Your task to perform on an android device: Go to wifi settings Image 0: 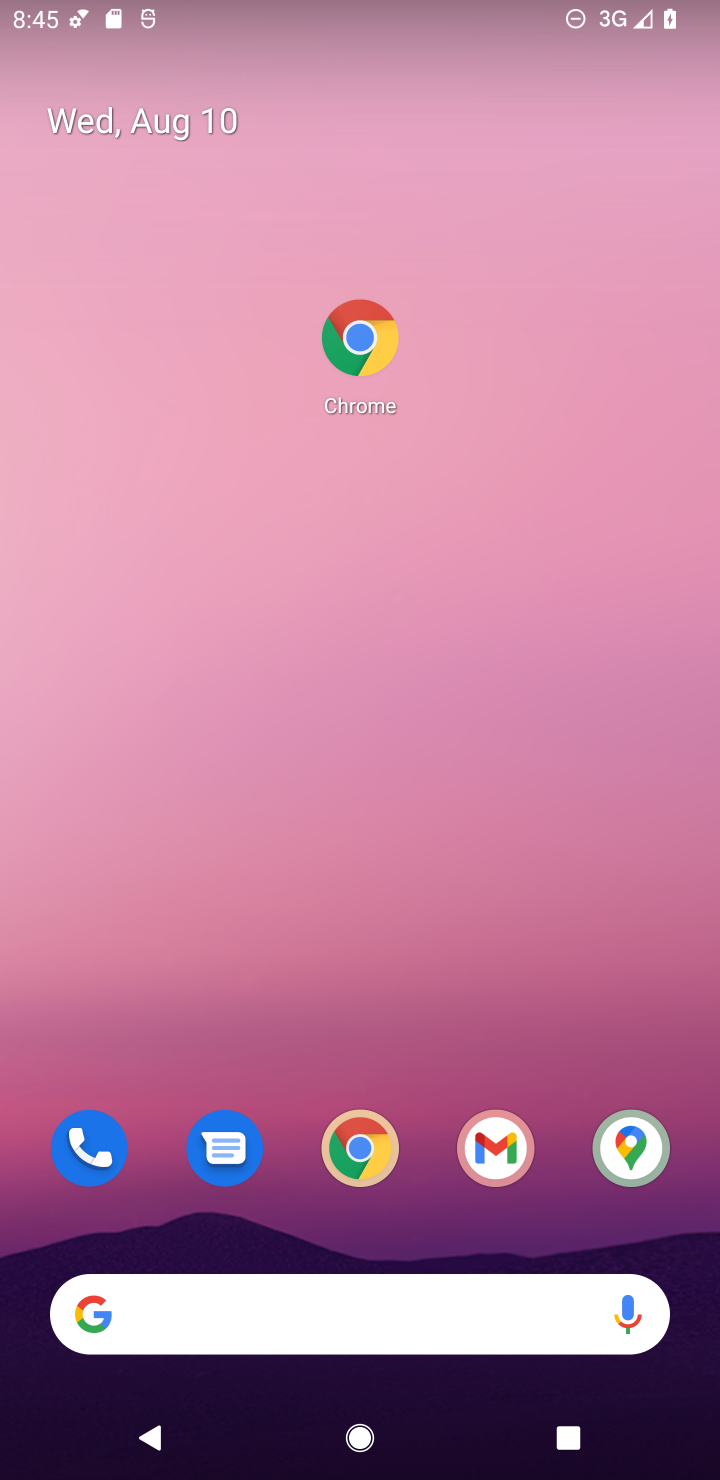
Step 0: drag from (337, 14) to (426, 952)
Your task to perform on an android device: Go to wifi settings Image 1: 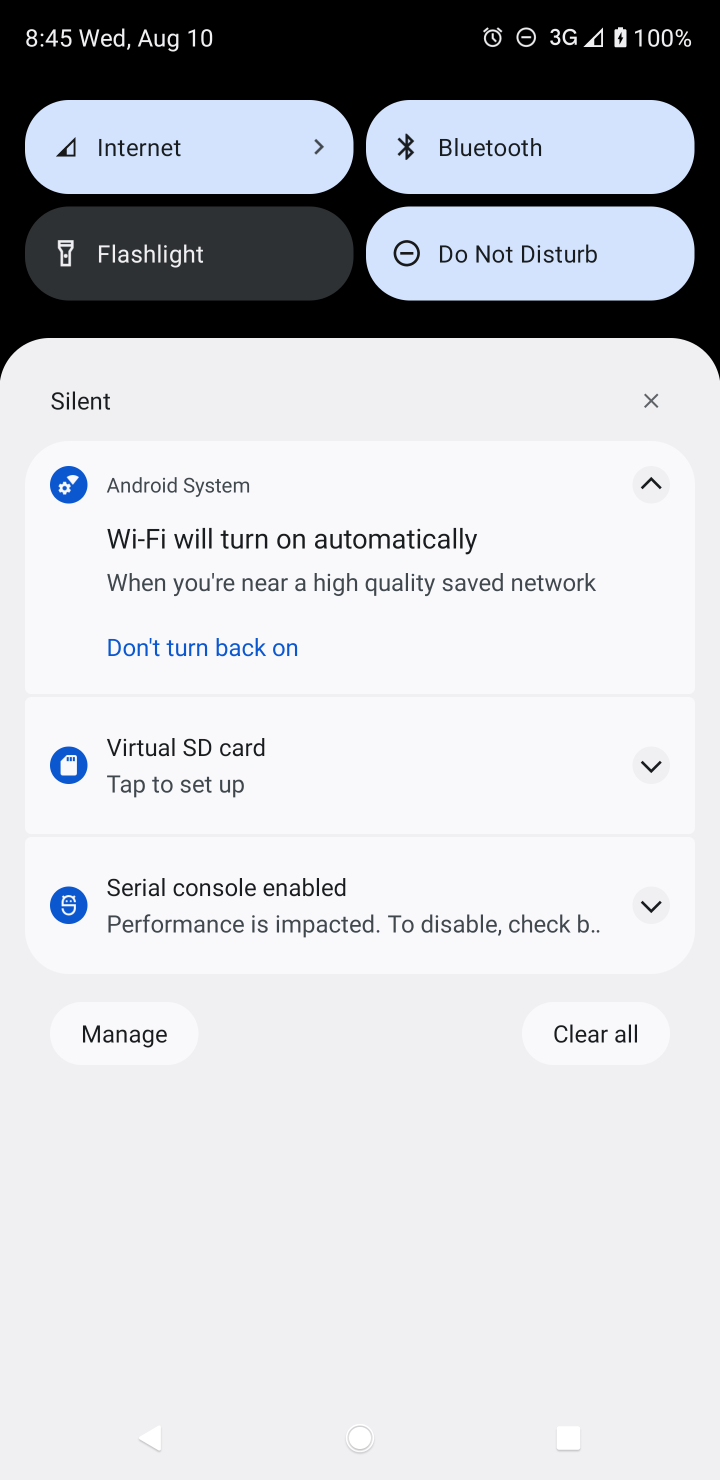
Step 1: click (282, 157)
Your task to perform on an android device: Go to wifi settings Image 2: 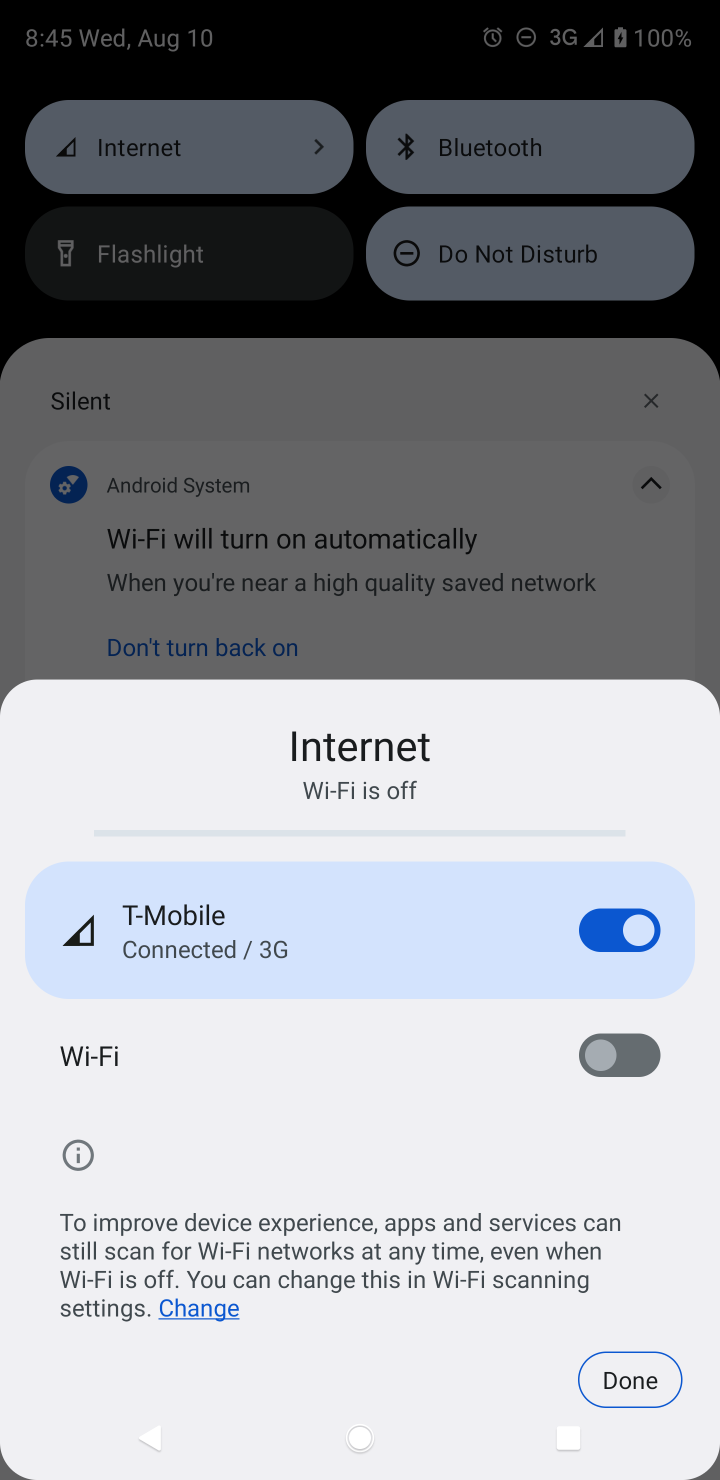
Step 2: click (204, 1080)
Your task to perform on an android device: Go to wifi settings Image 3: 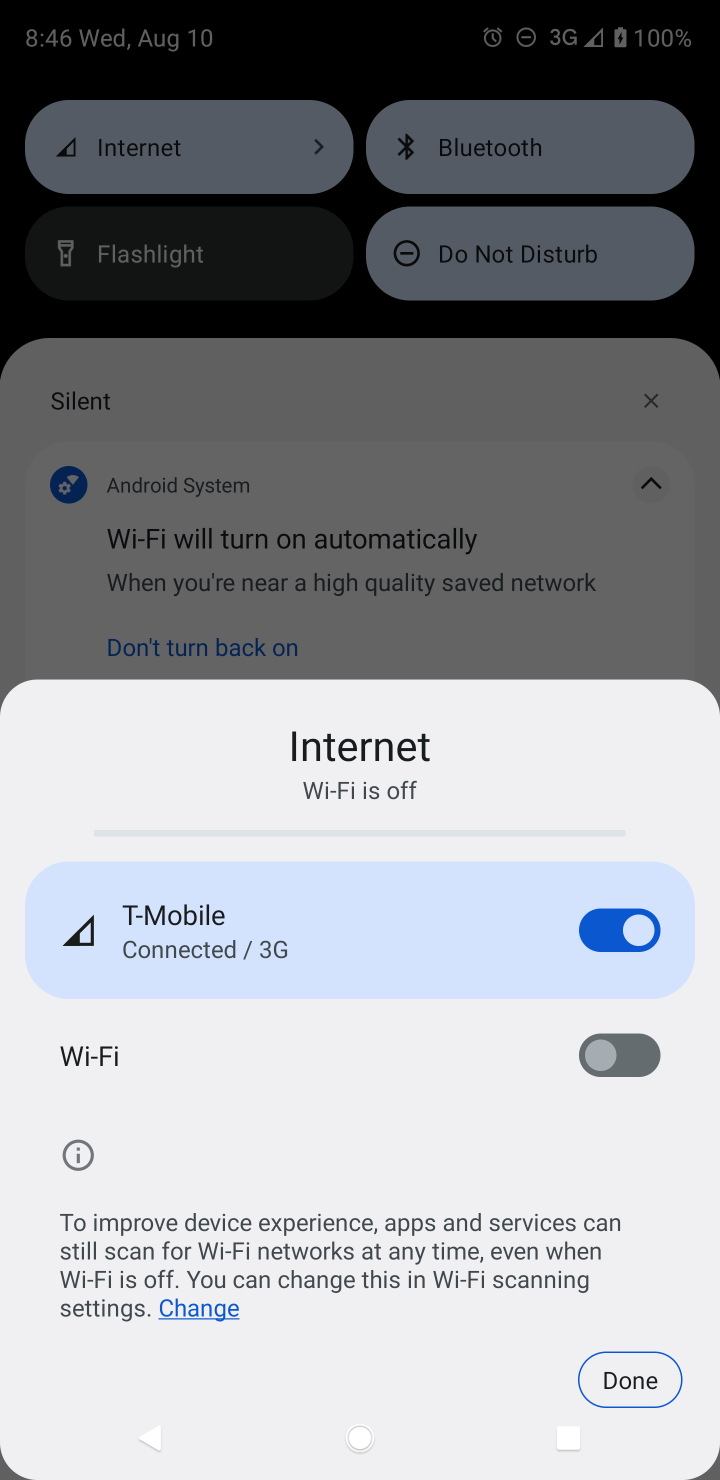
Step 3: click (588, 1058)
Your task to perform on an android device: Go to wifi settings Image 4: 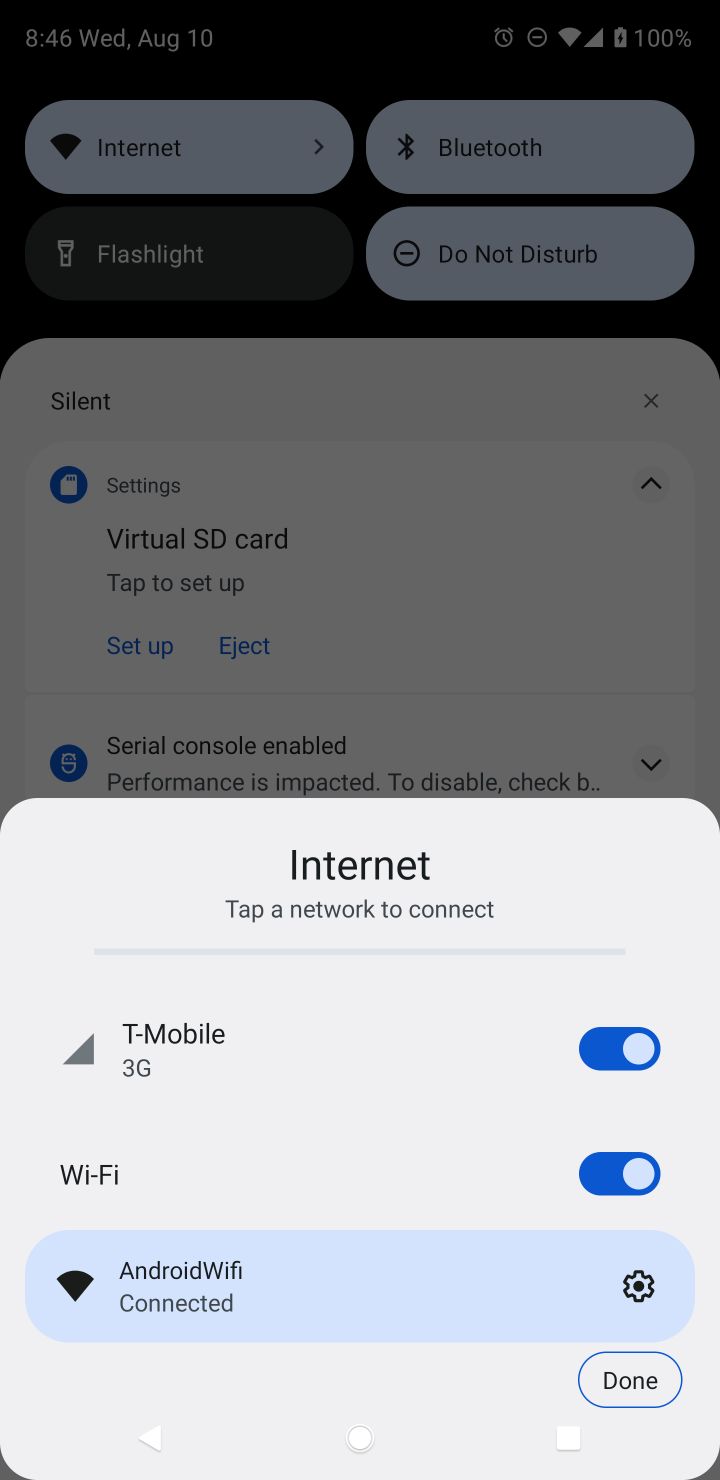
Step 4: click (640, 1286)
Your task to perform on an android device: Go to wifi settings Image 5: 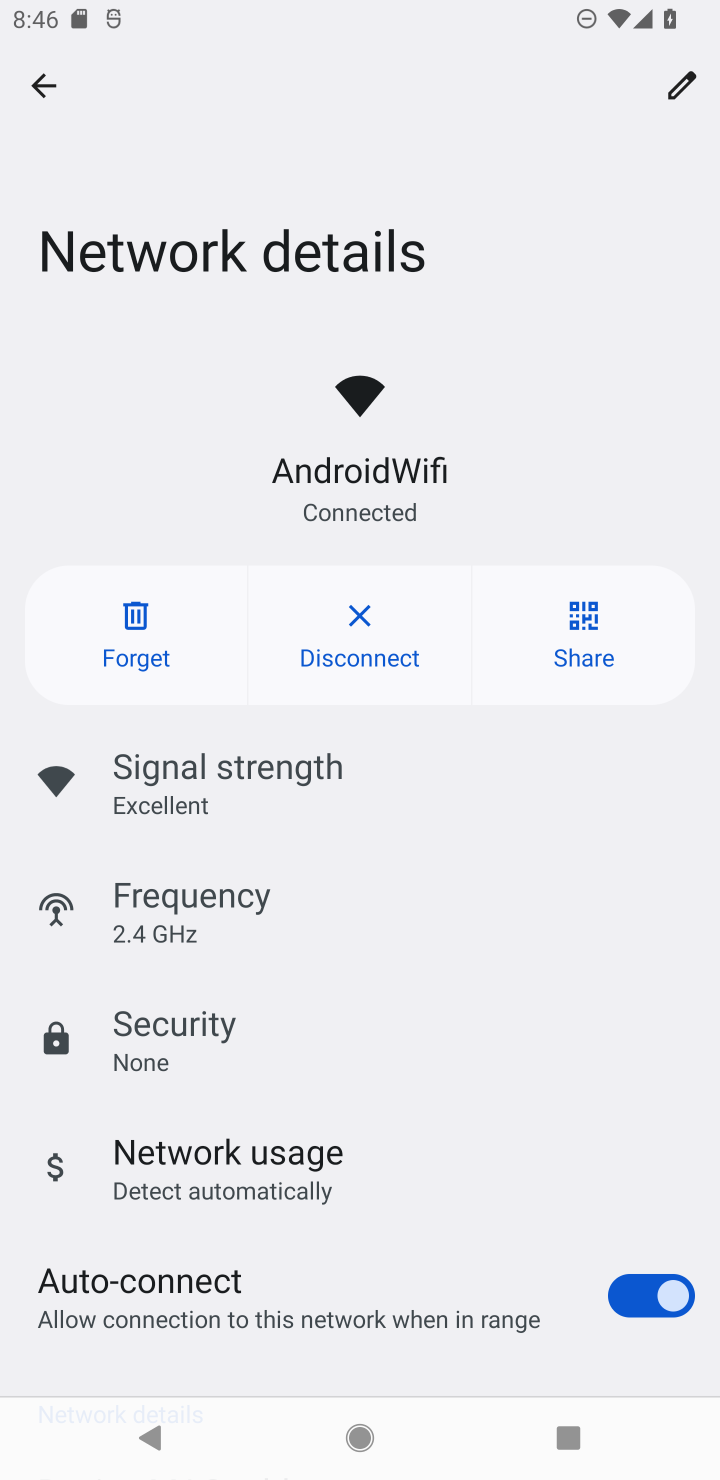
Step 5: task complete